Your task to perform on an android device: Open Youtube and go to the subscriptions tab Image 0: 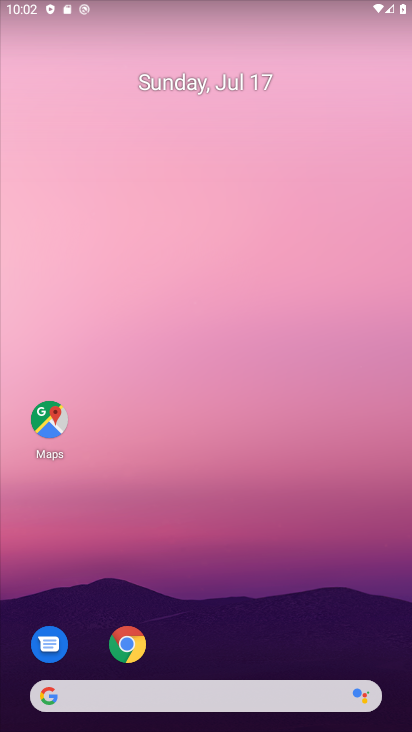
Step 0: drag from (249, 498) to (295, 4)
Your task to perform on an android device: Open Youtube and go to the subscriptions tab Image 1: 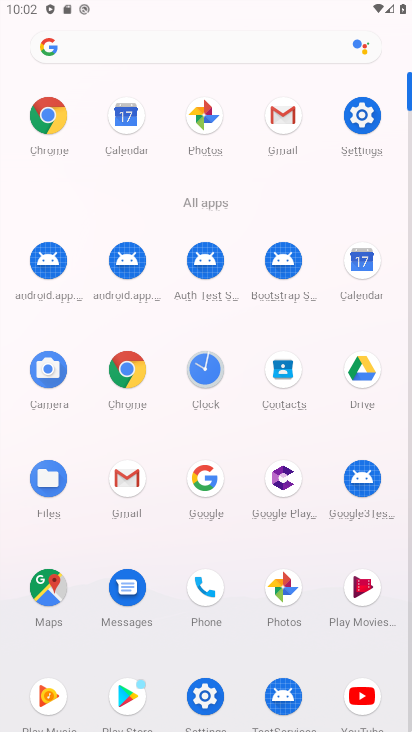
Step 1: click (364, 695)
Your task to perform on an android device: Open Youtube and go to the subscriptions tab Image 2: 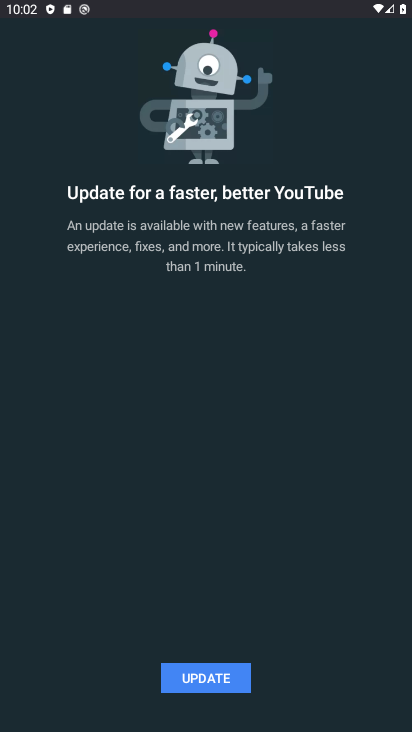
Step 2: click (226, 684)
Your task to perform on an android device: Open Youtube and go to the subscriptions tab Image 3: 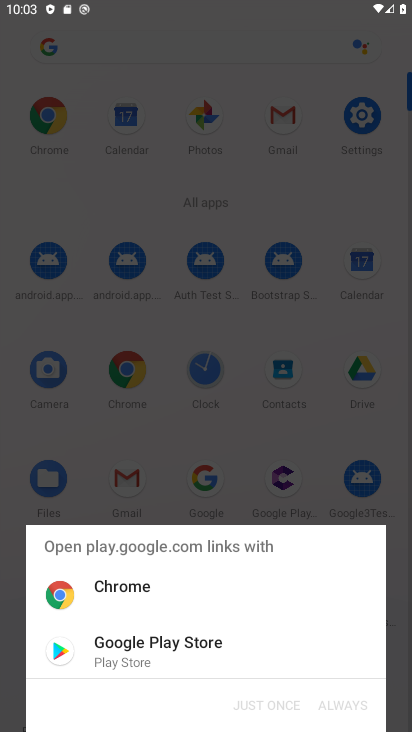
Step 3: click (115, 635)
Your task to perform on an android device: Open Youtube and go to the subscriptions tab Image 4: 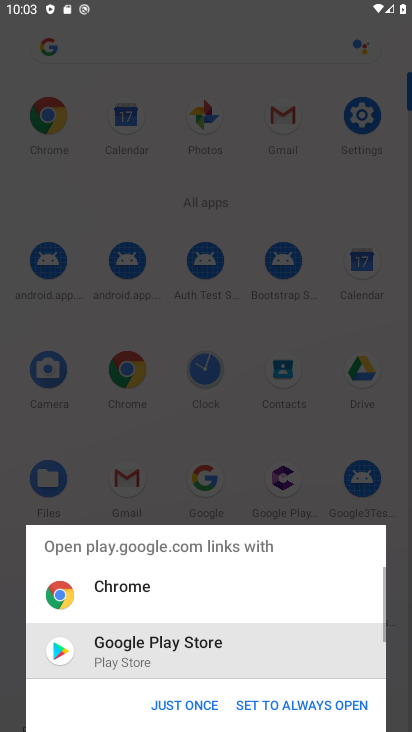
Step 4: click (166, 697)
Your task to perform on an android device: Open Youtube and go to the subscriptions tab Image 5: 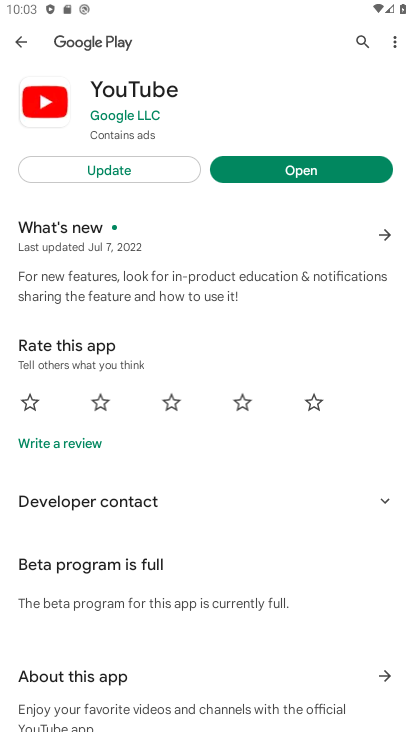
Step 5: click (112, 175)
Your task to perform on an android device: Open Youtube and go to the subscriptions tab Image 6: 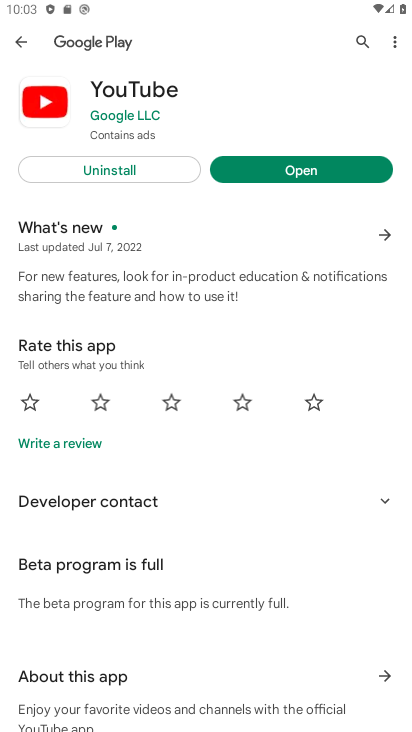
Step 6: click (274, 171)
Your task to perform on an android device: Open Youtube and go to the subscriptions tab Image 7: 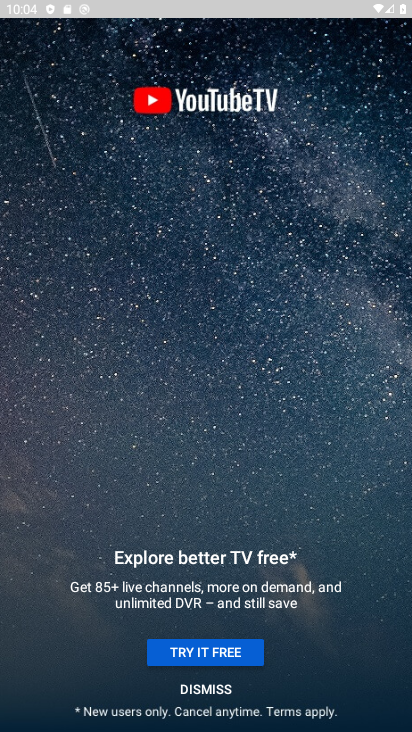
Step 7: click (199, 688)
Your task to perform on an android device: Open Youtube and go to the subscriptions tab Image 8: 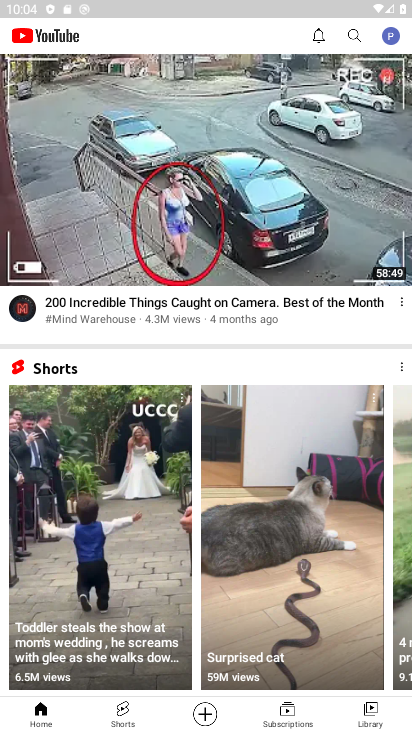
Step 8: click (282, 707)
Your task to perform on an android device: Open Youtube and go to the subscriptions tab Image 9: 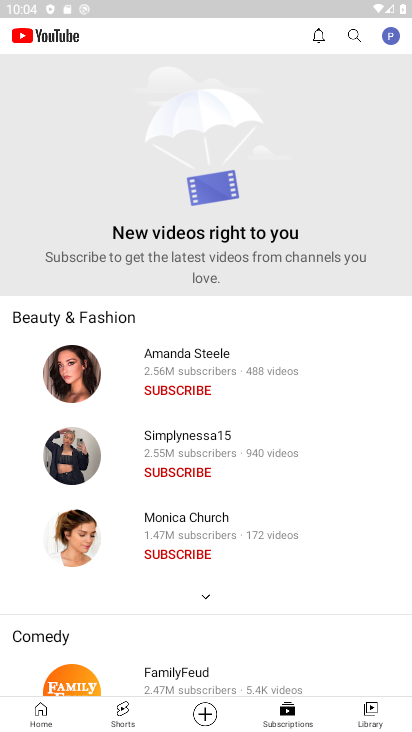
Step 9: task complete